Your task to perform on an android device: Open Reddit.com Image 0: 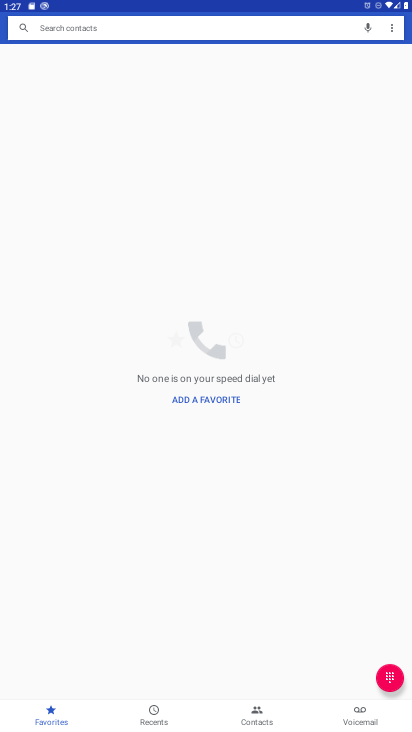
Step 0: press home button
Your task to perform on an android device: Open Reddit.com Image 1: 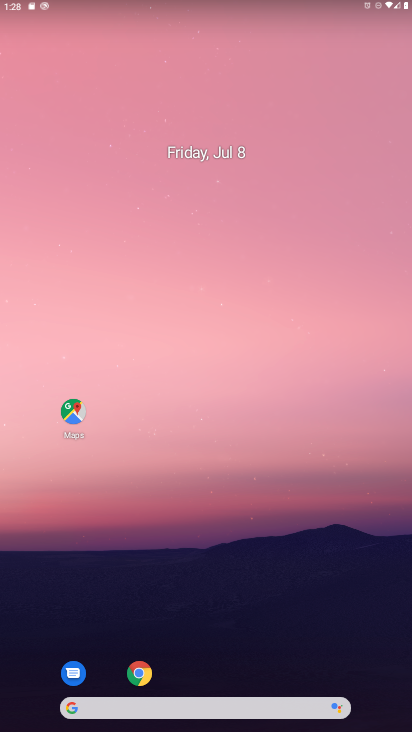
Step 1: click (132, 668)
Your task to perform on an android device: Open Reddit.com Image 2: 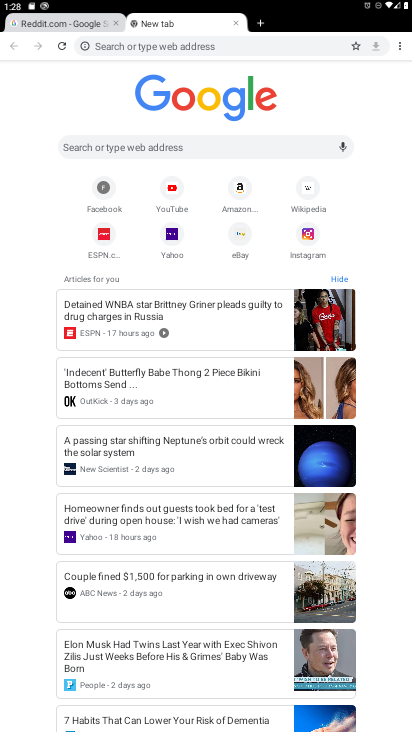
Step 2: click (143, 149)
Your task to perform on an android device: Open Reddit.com Image 3: 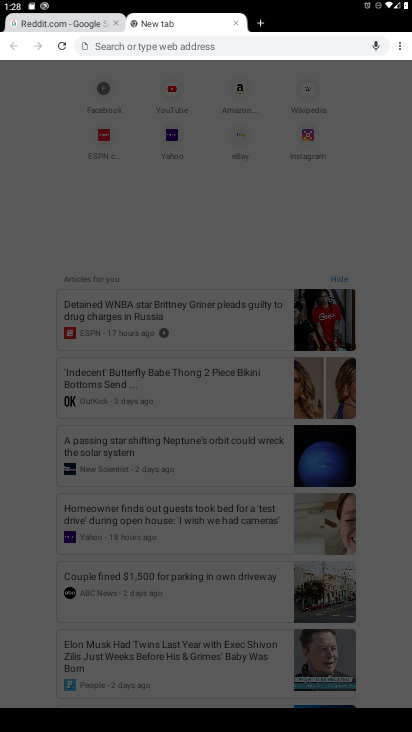
Step 3: type "Reddit.com"
Your task to perform on an android device: Open Reddit.com Image 4: 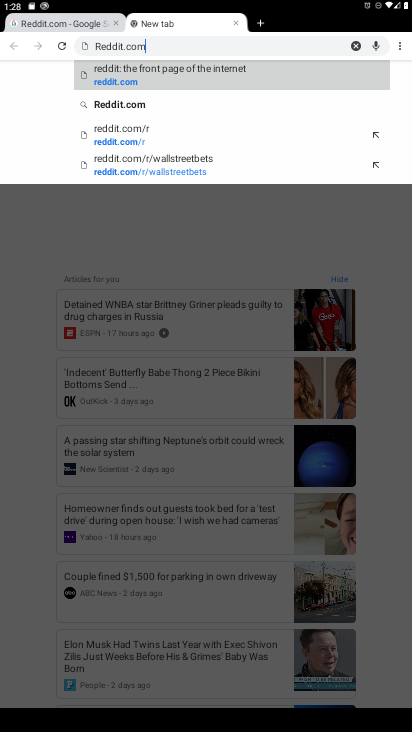
Step 4: click (142, 97)
Your task to perform on an android device: Open Reddit.com Image 5: 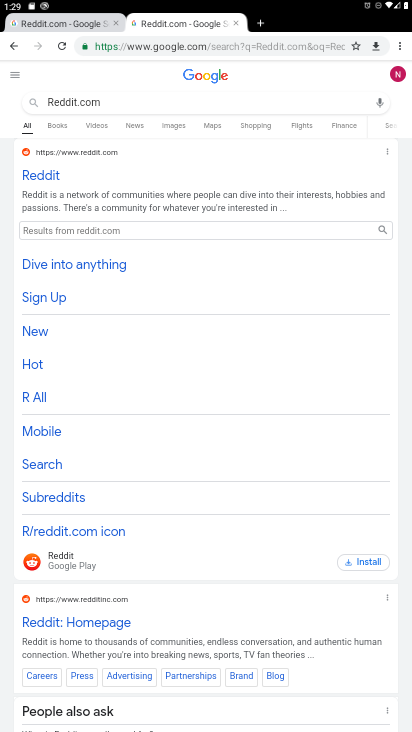
Step 5: task complete